Your task to perform on an android device: Open internet settings Image 0: 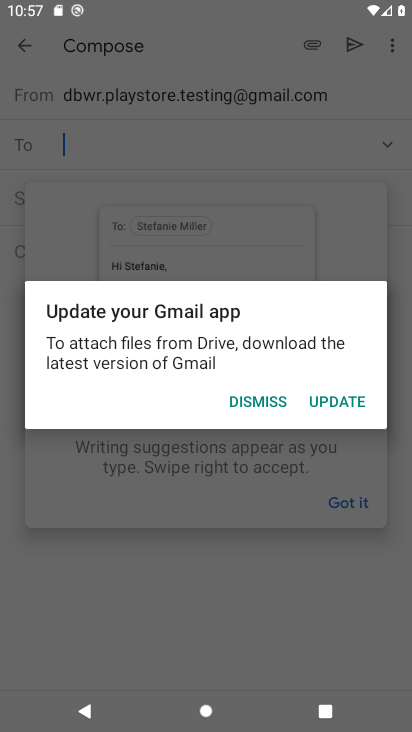
Step 0: press home button
Your task to perform on an android device: Open internet settings Image 1: 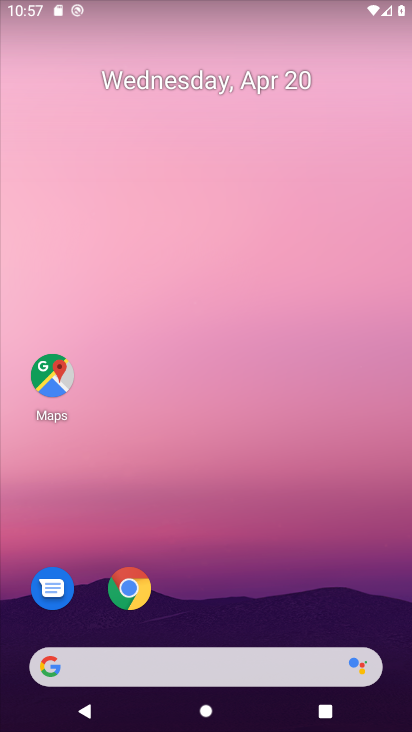
Step 1: drag from (373, 614) to (323, 84)
Your task to perform on an android device: Open internet settings Image 2: 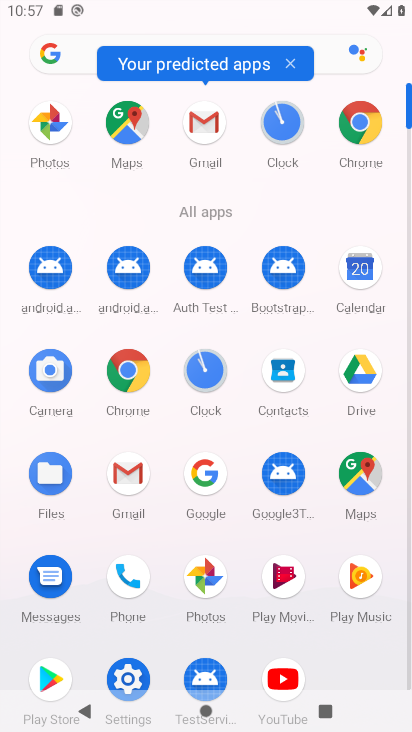
Step 2: click (126, 680)
Your task to perform on an android device: Open internet settings Image 3: 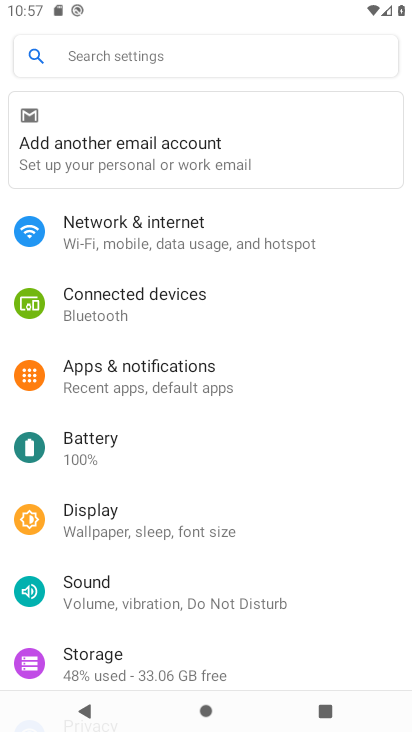
Step 3: click (116, 221)
Your task to perform on an android device: Open internet settings Image 4: 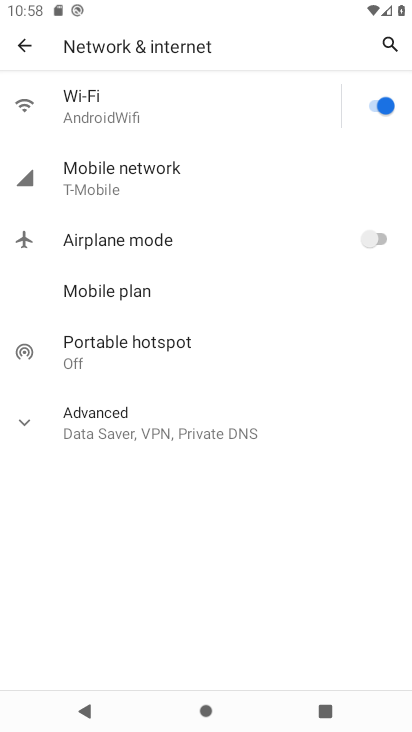
Step 4: click (23, 418)
Your task to perform on an android device: Open internet settings Image 5: 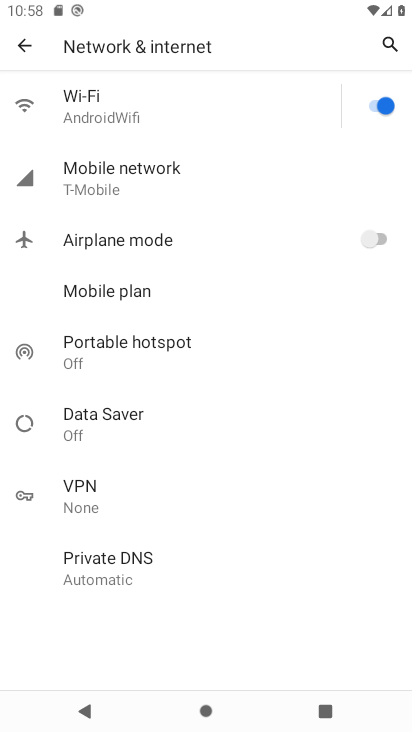
Step 5: click (131, 158)
Your task to perform on an android device: Open internet settings Image 6: 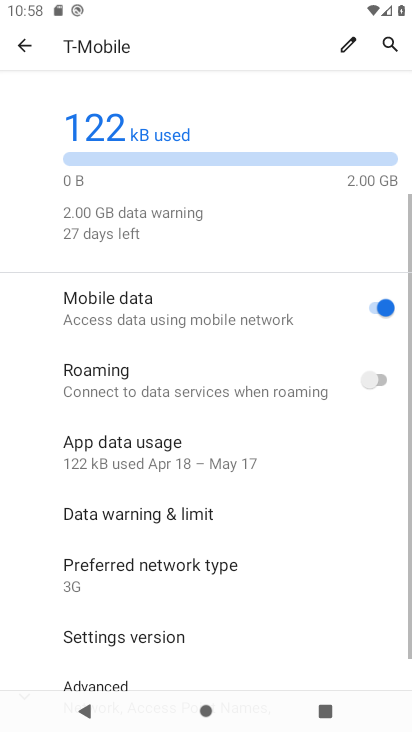
Step 6: task complete